Your task to perform on an android device: clear all cookies in the chrome app Image 0: 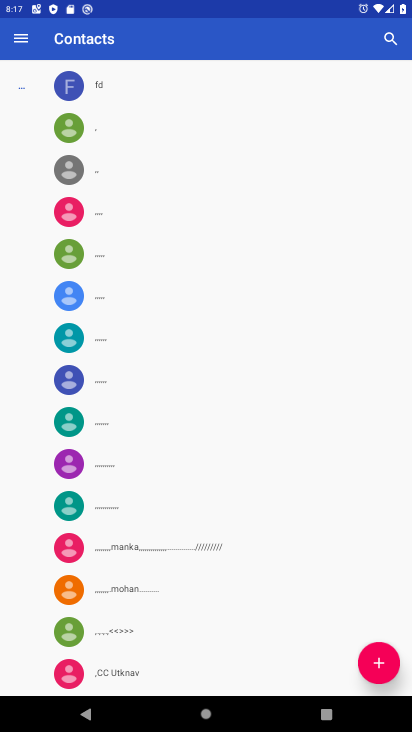
Step 0: press home button
Your task to perform on an android device: clear all cookies in the chrome app Image 1: 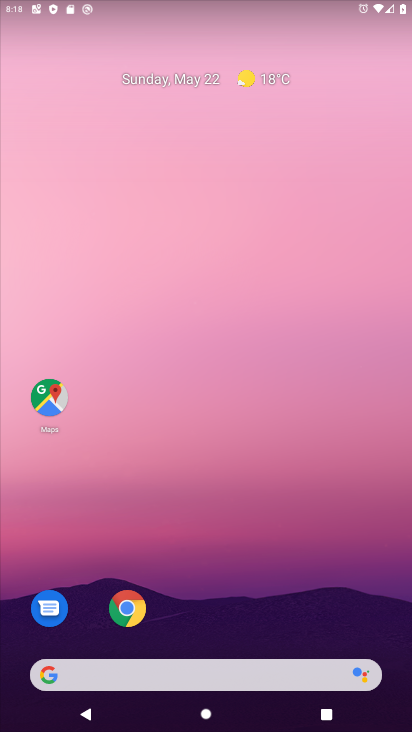
Step 1: click (129, 610)
Your task to perform on an android device: clear all cookies in the chrome app Image 2: 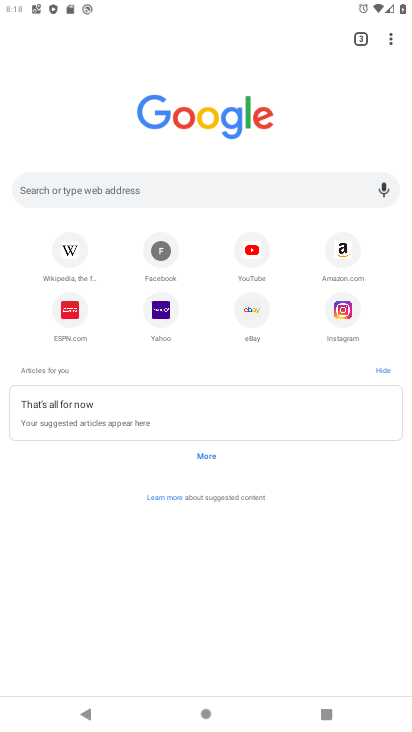
Step 2: click (391, 42)
Your task to perform on an android device: clear all cookies in the chrome app Image 3: 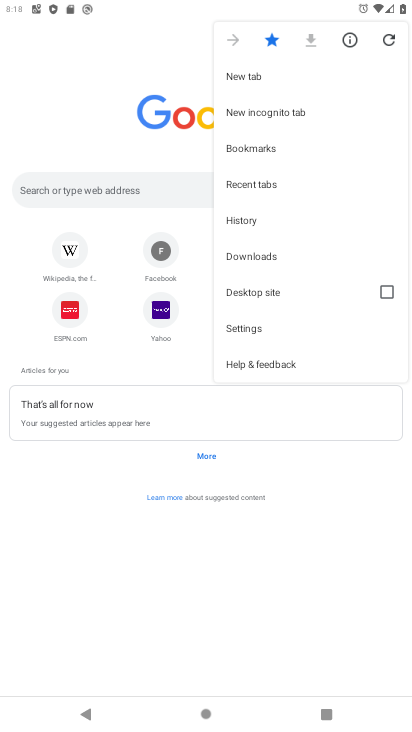
Step 3: click (241, 216)
Your task to perform on an android device: clear all cookies in the chrome app Image 4: 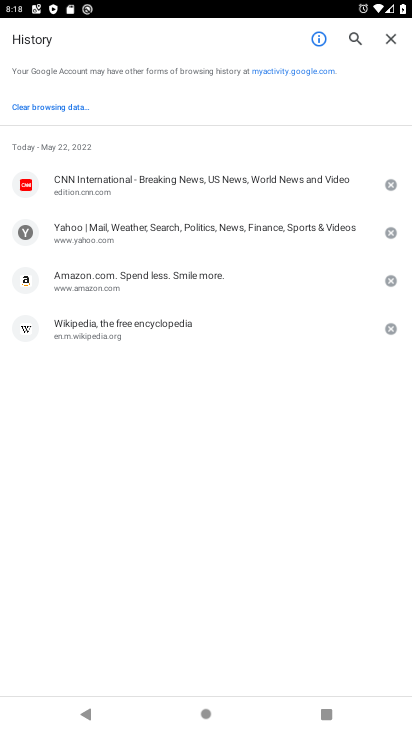
Step 4: click (60, 108)
Your task to perform on an android device: clear all cookies in the chrome app Image 5: 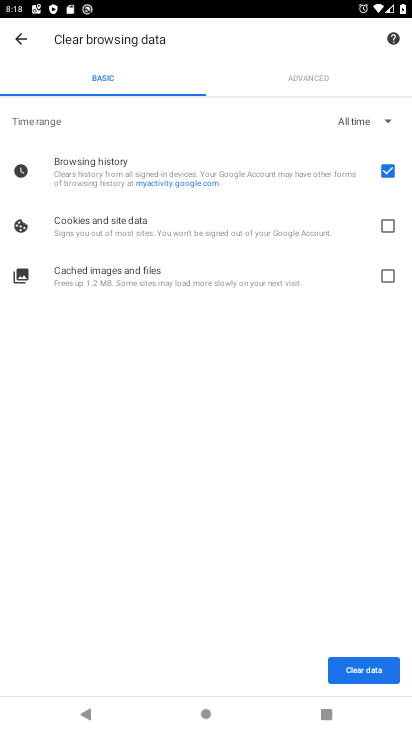
Step 5: click (389, 172)
Your task to perform on an android device: clear all cookies in the chrome app Image 6: 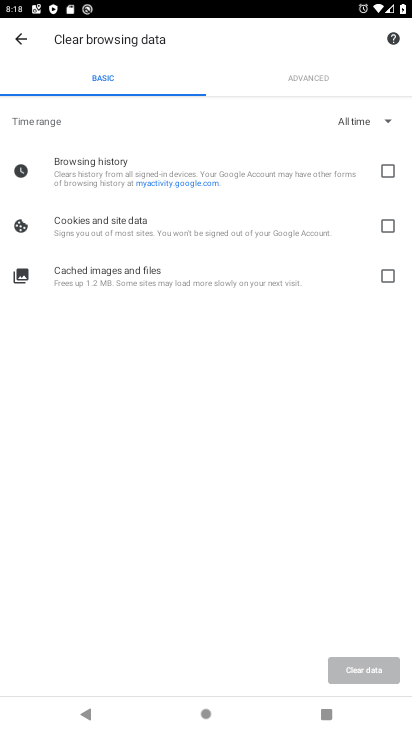
Step 6: click (391, 221)
Your task to perform on an android device: clear all cookies in the chrome app Image 7: 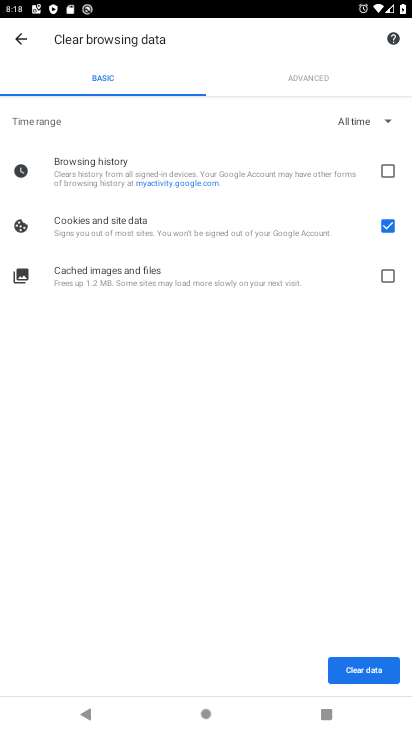
Step 7: click (372, 671)
Your task to perform on an android device: clear all cookies in the chrome app Image 8: 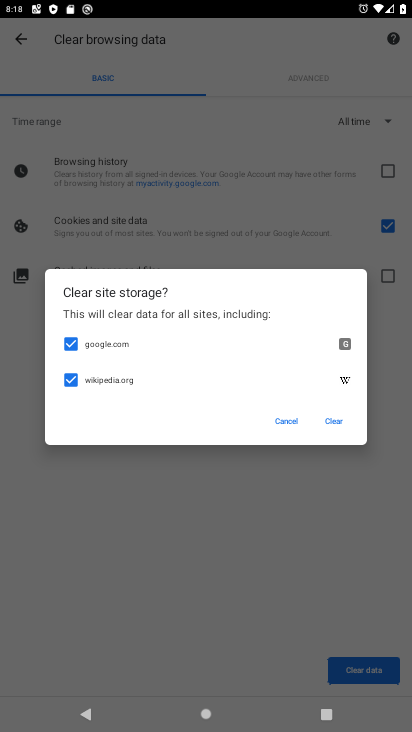
Step 8: click (334, 421)
Your task to perform on an android device: clear all cookies in the chrome app Image 9: 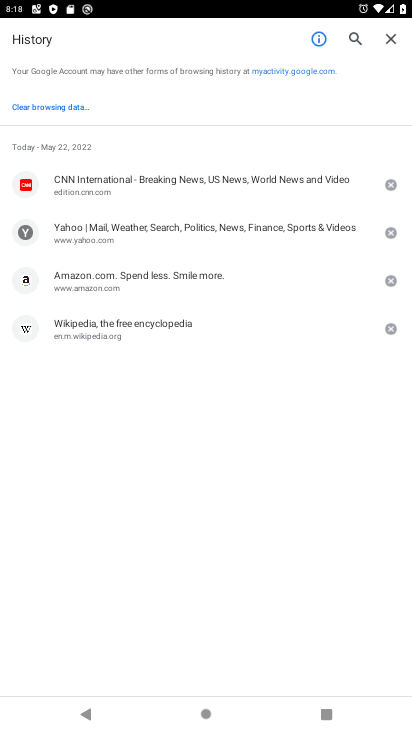
Step 9: task complete